Your task to perform on an android device: turn off improve location accuracy Image 0: 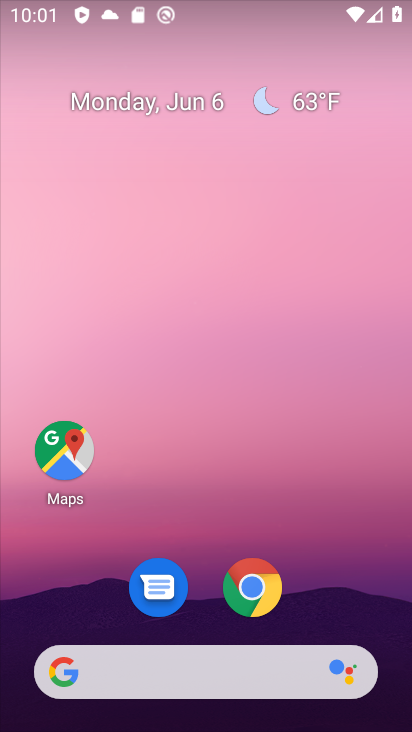
Step 0: drag from (195, 646) to (252, 162)
Your task to perform on an android device: turn off improve location accuracy Image 1: 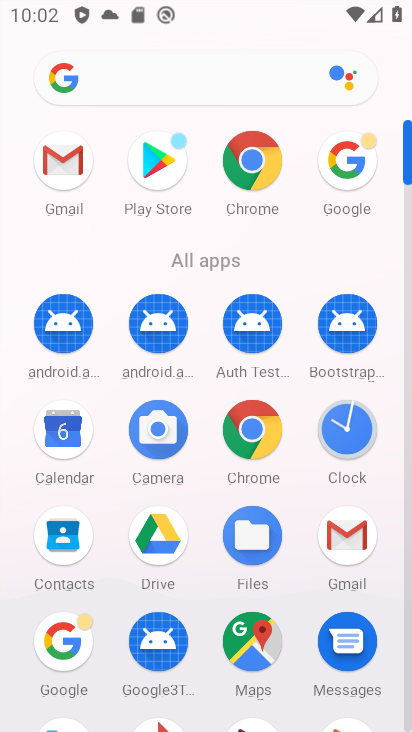
Step 1: drag from (91, 685) to (130, 290)
Your task to perform on an android device: turn off improve location accuracy Image 2: 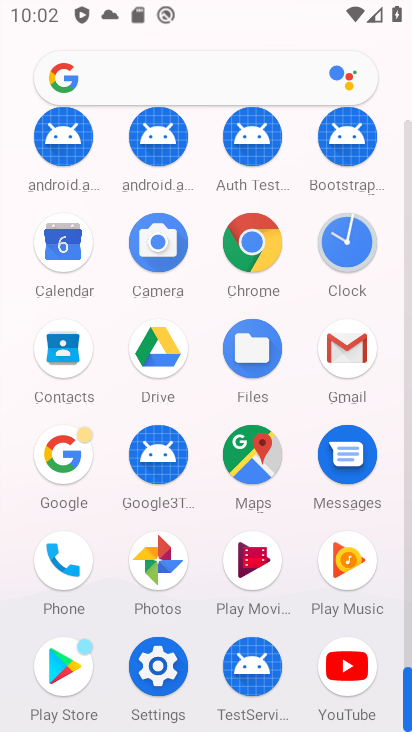
Step 2: click (165, 675)
Your task to perform on an android device: turn off improve location accuracy Image 3: 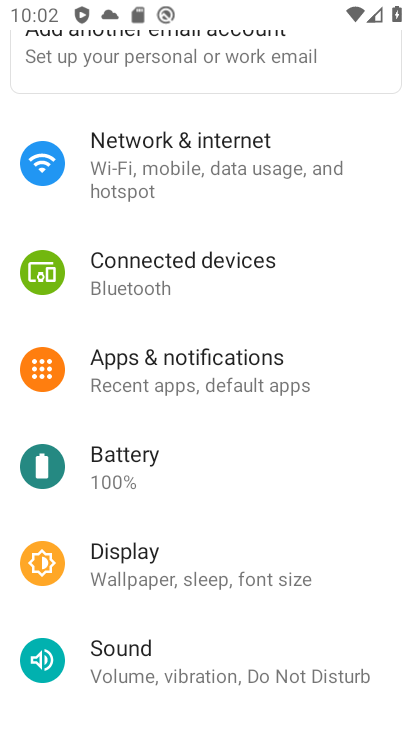
Step 3: drag from (165, 685) to (235, 257)
Your task to perform on an android device: turn off improve location accuracy Image 4: 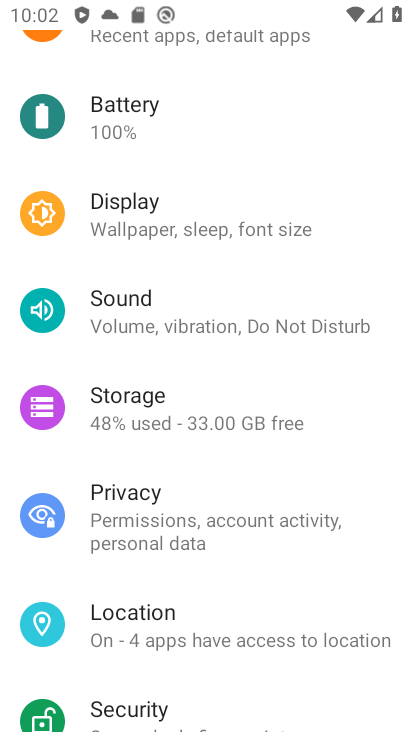
Step 4: click (142, 625)
Your task to perform on an android device: turn off improve location accuracy Image 5: 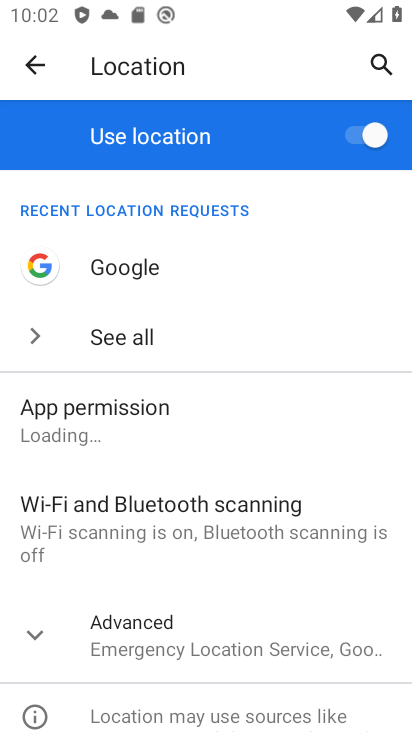
Step 5: click (174, 641)
Your task to perform on an android device: turn off improve location accuracy Image 6: 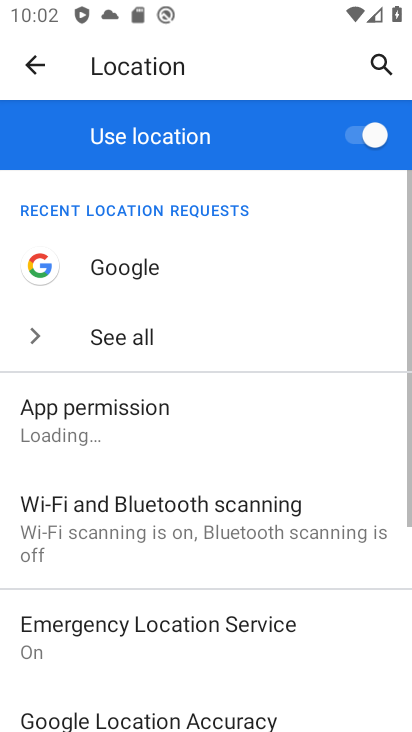
Step 6: drag from (265, 662) to (259, 221)
Your task to perform on an android device: turn off improve location accuracy Image 7: 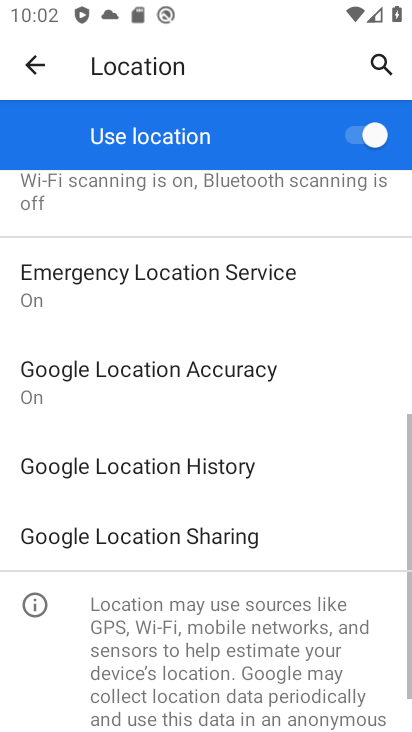
Step 7: click (177, 388)
Your task to perform on an android device: turn off improve location accuracy Image 8: 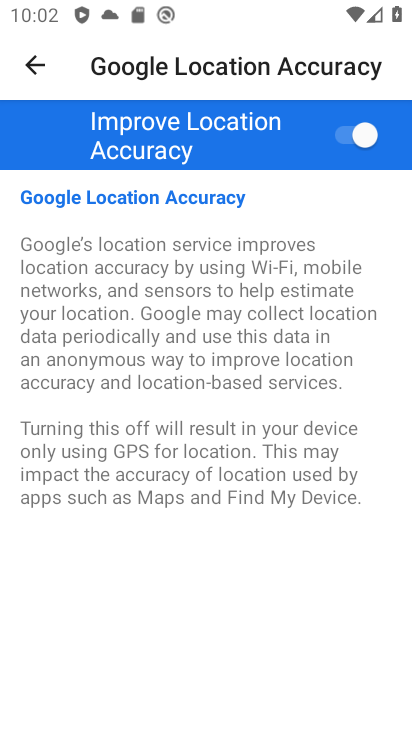
Step 8: click (347, 137)
Your task to perform on an android device: turn off improve location accuracy Image 9: 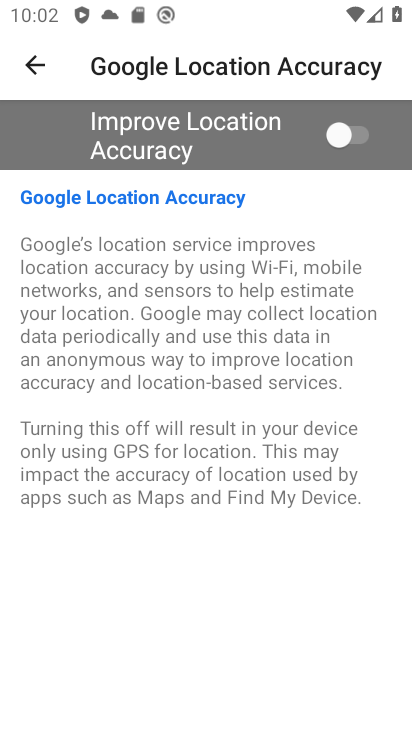
Step 9: task complete